Your task to perform on an android device: Open Chrome and go to settings Image 0: 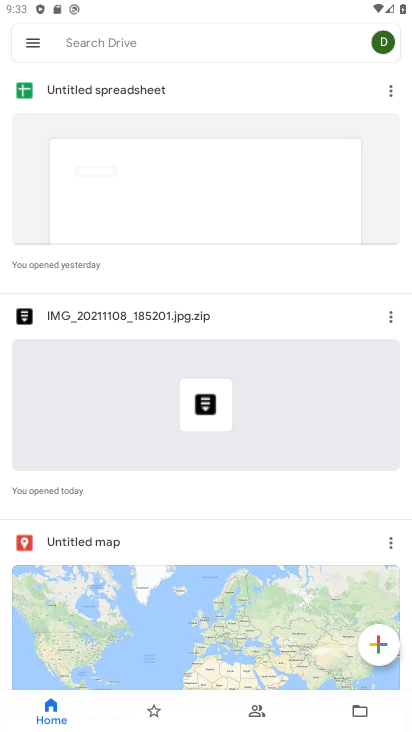
Step 0: press home button
Your task to perform on an android device: Open Chrome and go to settings Image 1: 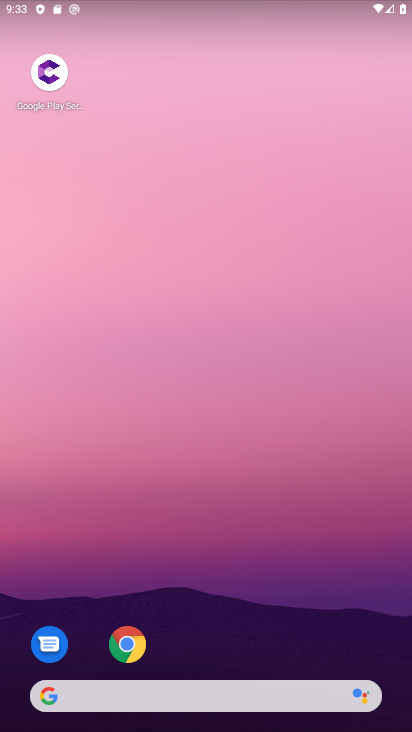
Step 1: click (122, 655)
Your task to perform on an android device: Open Chrome and go to settings Image 2: 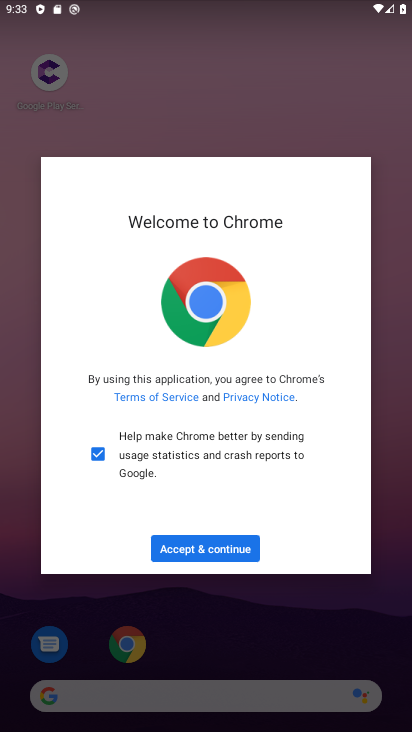
Step 2: click (218, 548)
Your task to perform on an android device: Open Chrome and go to settings Image 3: 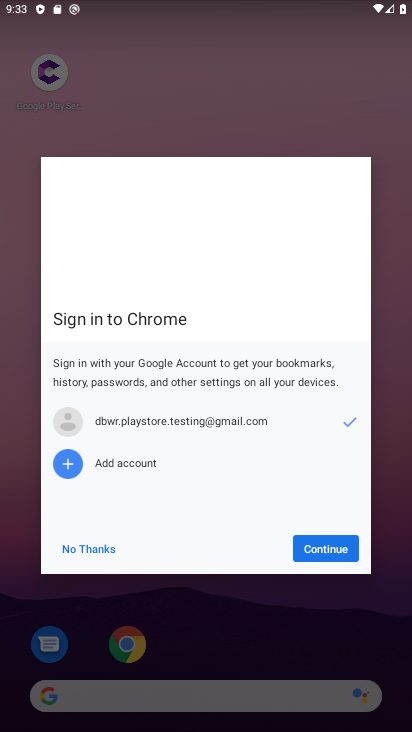
Step 3: click (319, 546)
Your task to perform on an android device: Open Chrome and go to settings Image 4: 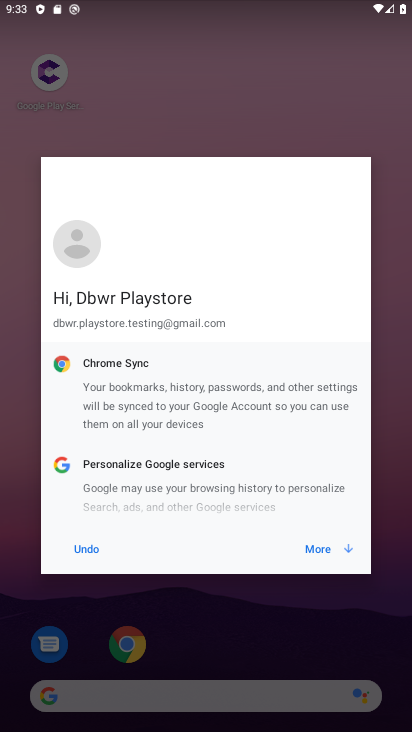
Step 4: click (319, 546)
Your task to perform on an android device: Open Chrome and go to settings Image 5: 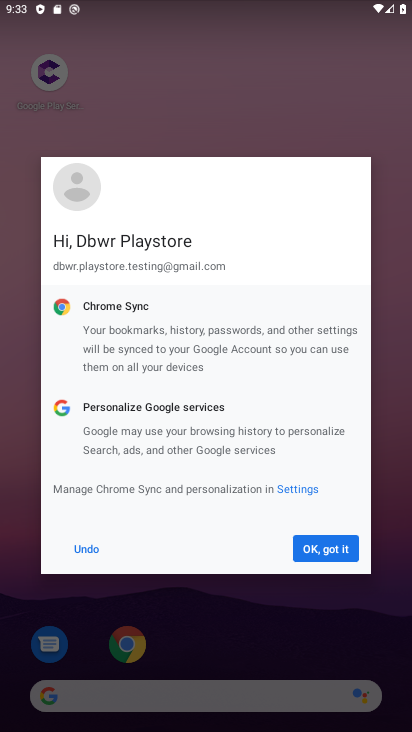
Step 5: click (319, 546)
Your task to perform on an android device: Open Chrome and go to settings Image 6: 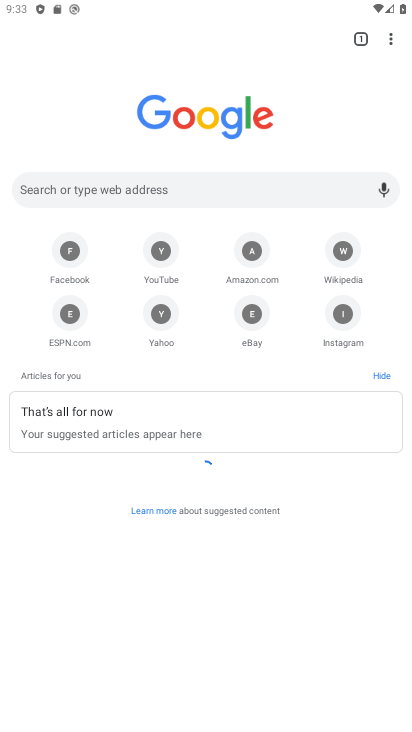
Step 6: task complete